Your task to perform on an android device: turn on sleep mode Image 0: 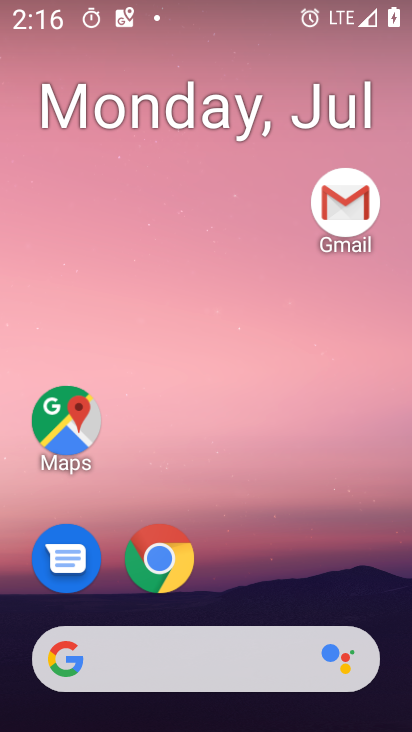
Step 0: drag from (371, 581) to (352, 217)
Your task to perform on an android device: turn on sleep mode Image 1: 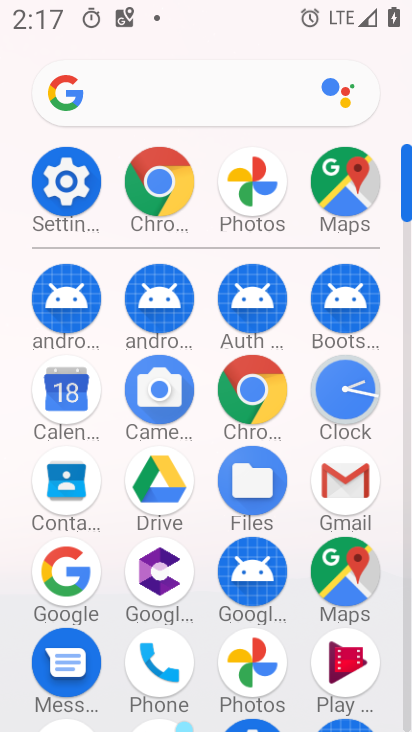
Step 1: click (86, 199)
Your task to perform on an android device: turn on sleep mode Image 2: 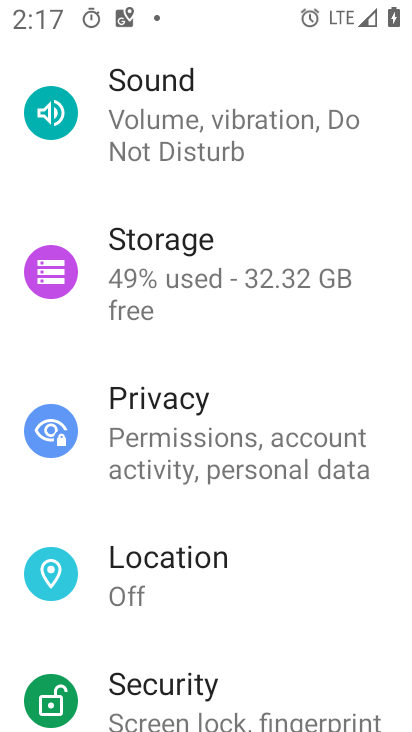
Step 2: drag from (308, 209) to (322, 303)
Your task to perform on an android device: turn on sleep mode Image 3: 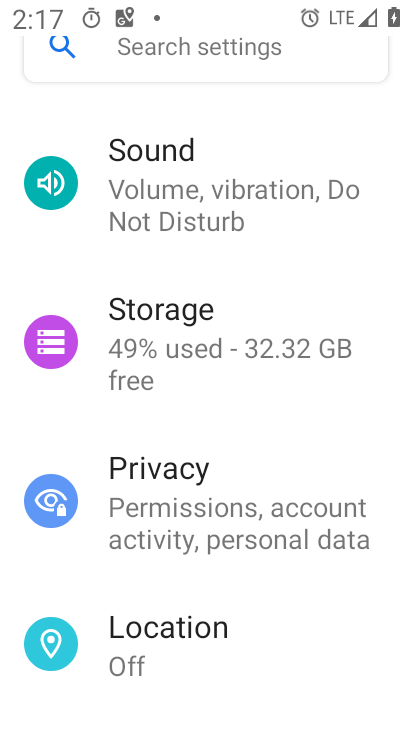
Step 3: drag from (354, 229) to (361, 323)
Your task to perform on an android device: turn on sleep mode Image 4: 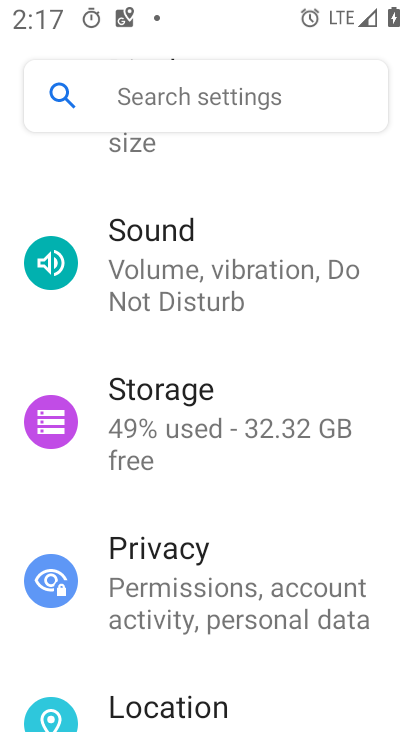
Step 4: drag from (361, 209) to (363, 310)
Your task to perform on an android device: turn on sleep mode Image 5: 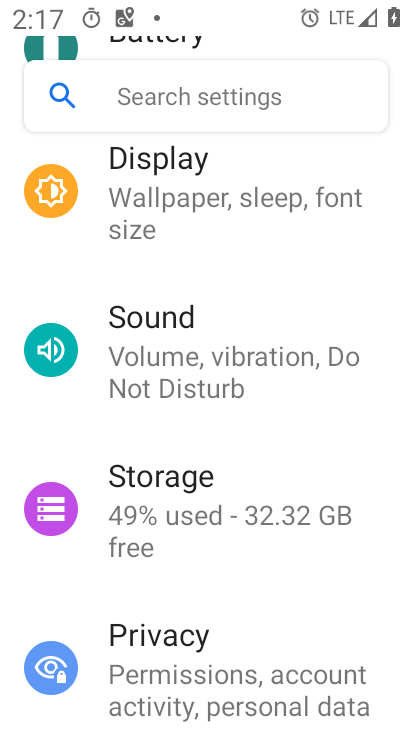
Step 5: drag from (372, 228) to (371, 331)
Your task to perform on an android device: turn on sleep mode Image 6: 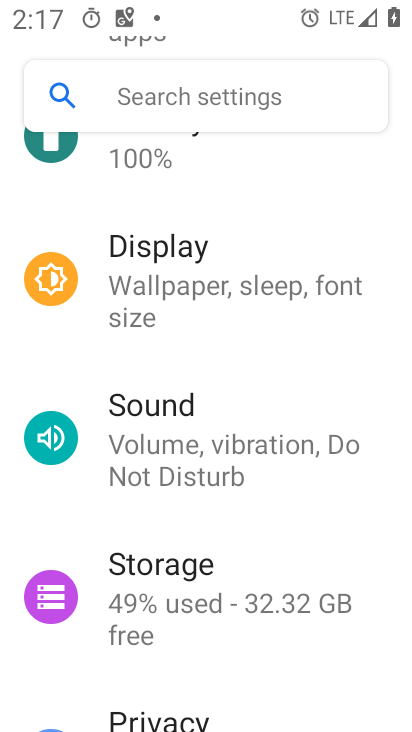
Step 6: drag from (371, 222) to (375, 334)
Your task to perform on an android device: turn on sleep mode Image 7: 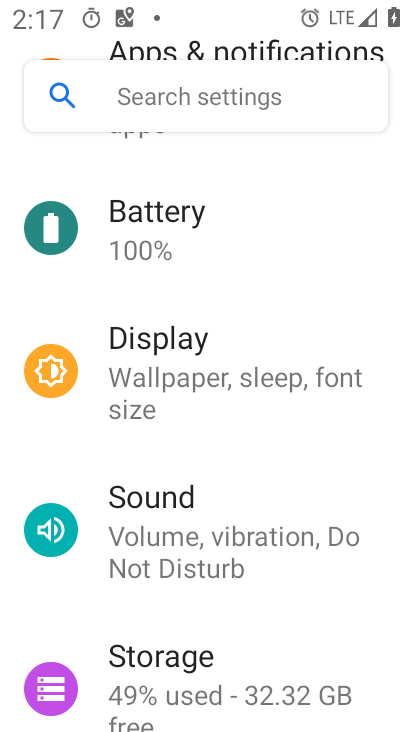
Step 7: drag from (369, 223) to (364, 367)
Your task to perform on an android device: turn on sleep mode Image 8: 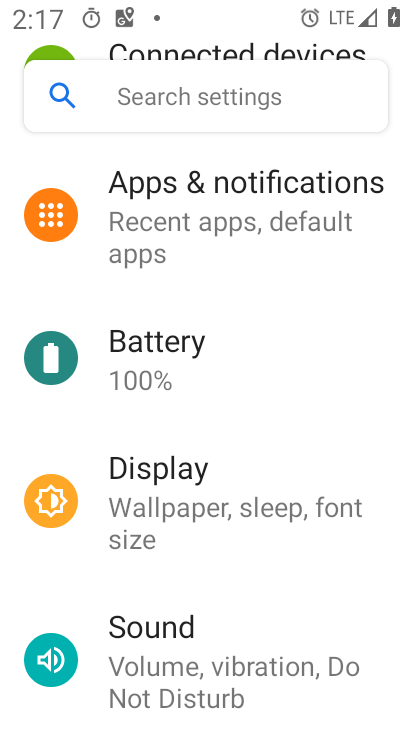
Step 8: click (317, 495)
Your task to perform on an android device: turn on sleep mode Image 9: 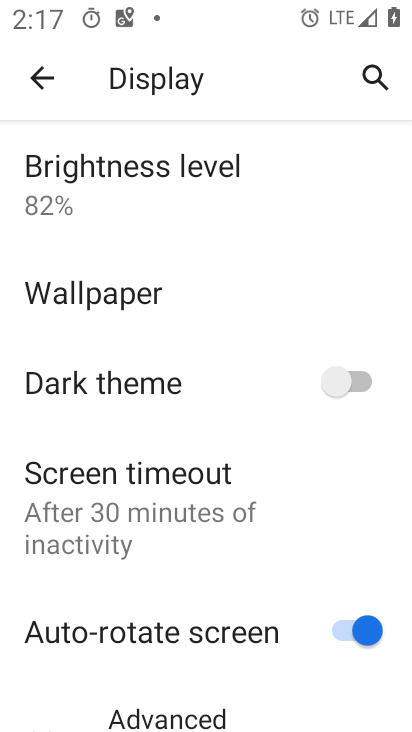
Step 9: drag from (280, 582) to (279, 410)
Your task to perform on an android device: turn on sleep mode Image 10: 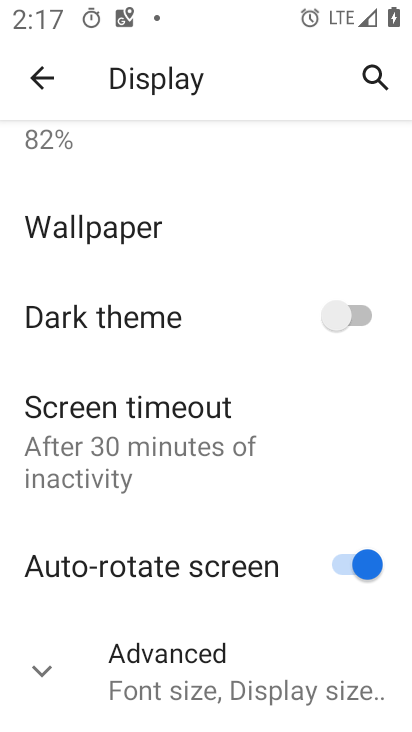
Step 10: drag from (241, 553) to (241, 409)
Your task to perform on an android device: turn on sleep mode Image 11: 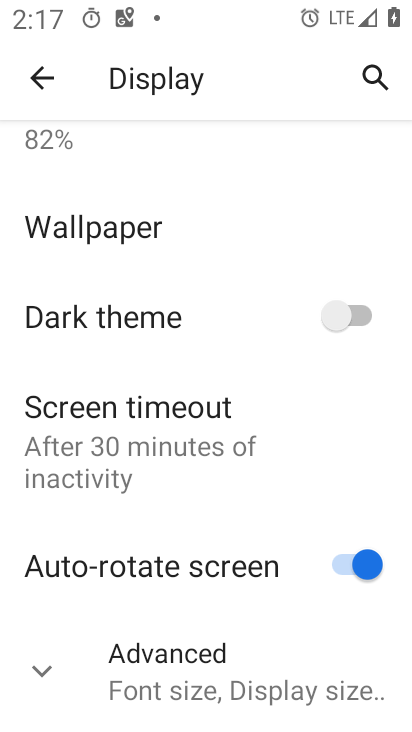
Step 11: click (243, 655)
Your task to perform on an android device: turn on sleep mode Image 12: 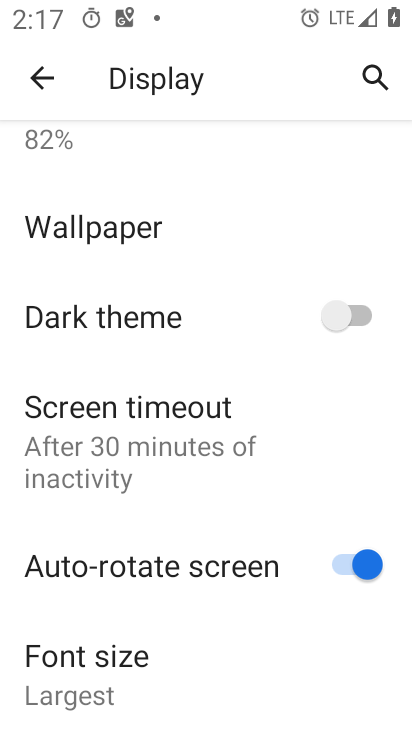
Step 12: task complete